Your task to perform on an android device: open app "Spotify: Music and Podcasts" (install if not already installed) and enter user name: "principled@inbox.com" and password: "arrests" Image 0: 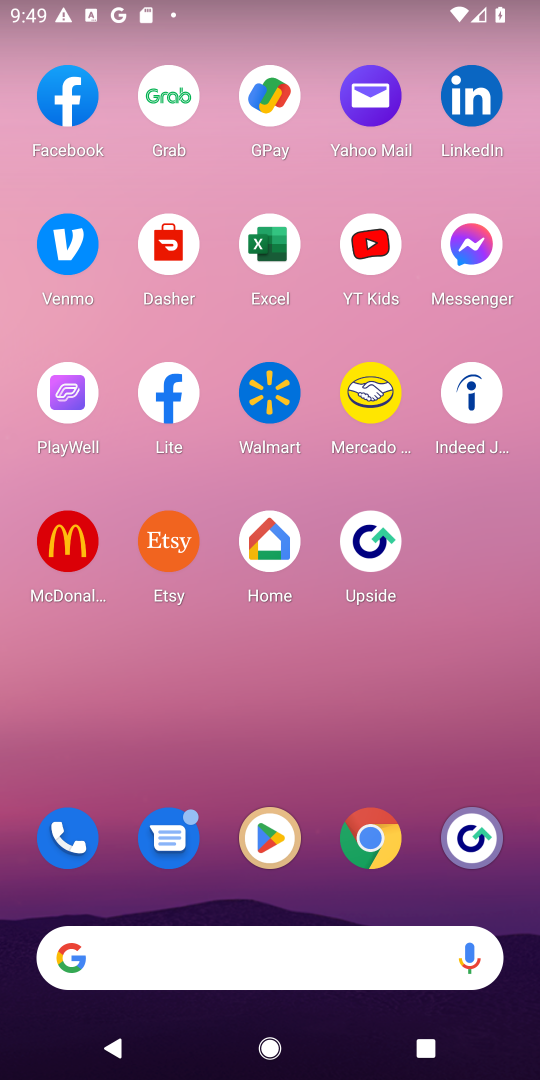
Step 0: click (270, 829)
Your task to perform on an android device: open app "Spotify: Music and Podcasts" (install if not already installed) and enter user name: "principled@inbox.com" and password: "arrests" Image 1: 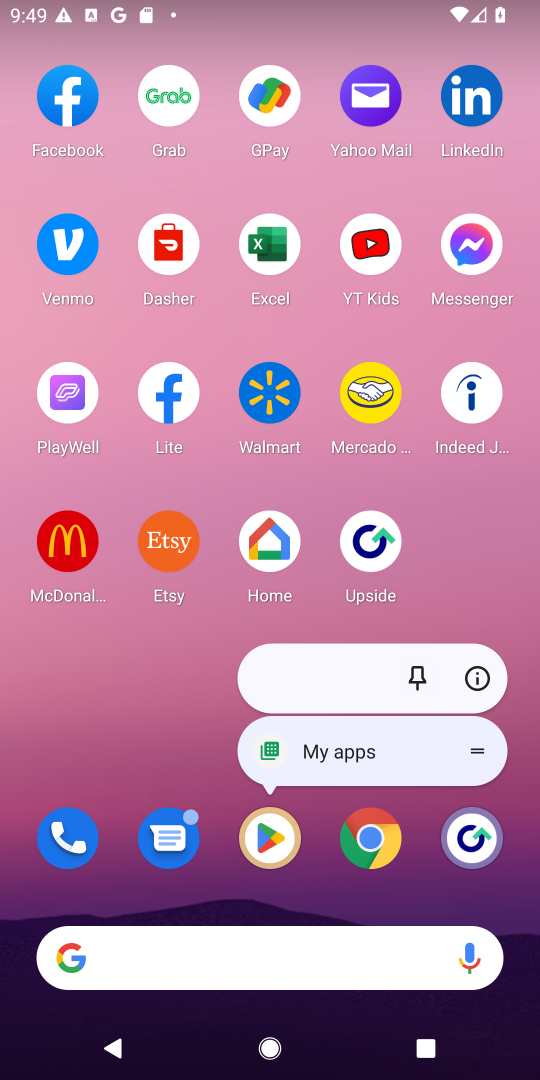
Step 1: click (270, 829)
Your task to perform on an android device: open app "Spotify: Music and Podcasts" (install if not already installed) and enter user name: "principled@inbox.com" and password: "arrests" Image 2: 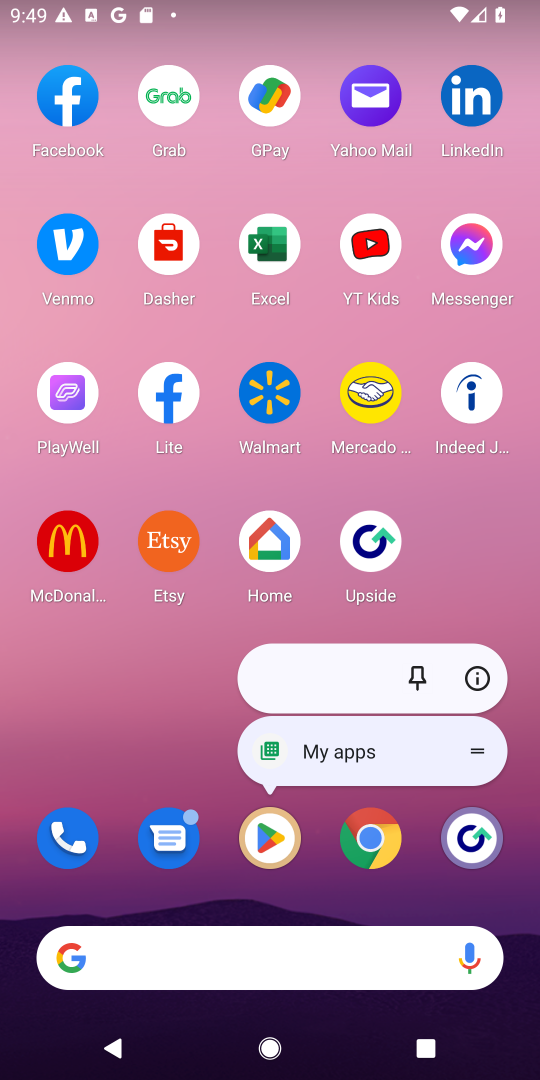
Step 2: click (278, 821)
Your task to perform on an android device: open app "Spotify: Music and Podcasts" (install if not already installed) and enter user name: "principled@inbox.com" and password: "arrests" Image 3: 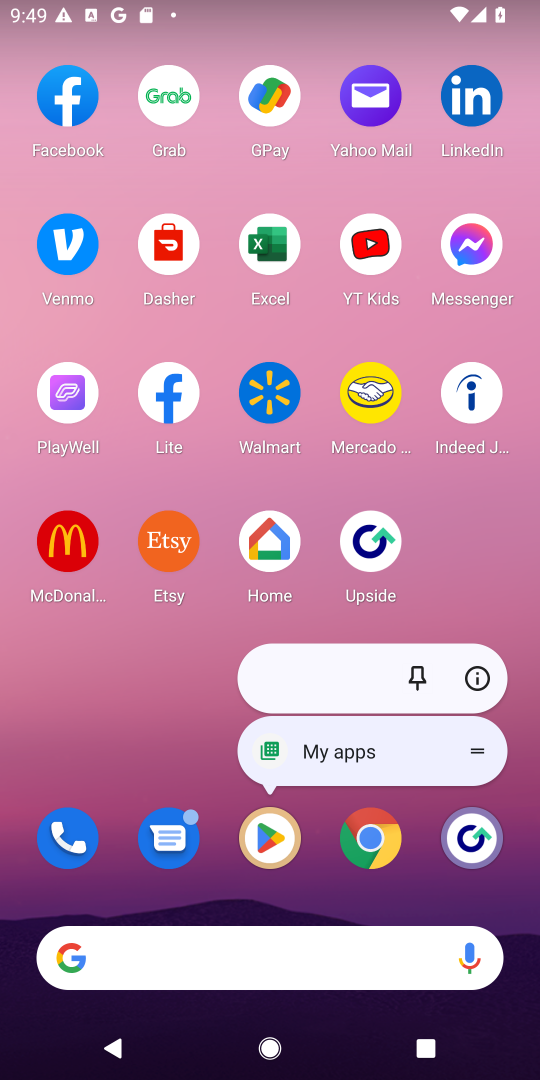
Step 3: click (278, 821)
Your task to perform on an android device: open app "Spotify: Music and Podcasts" (install if not already installed) and enter user name: "principled@inbox.com" and password: "arrests" Image 4: 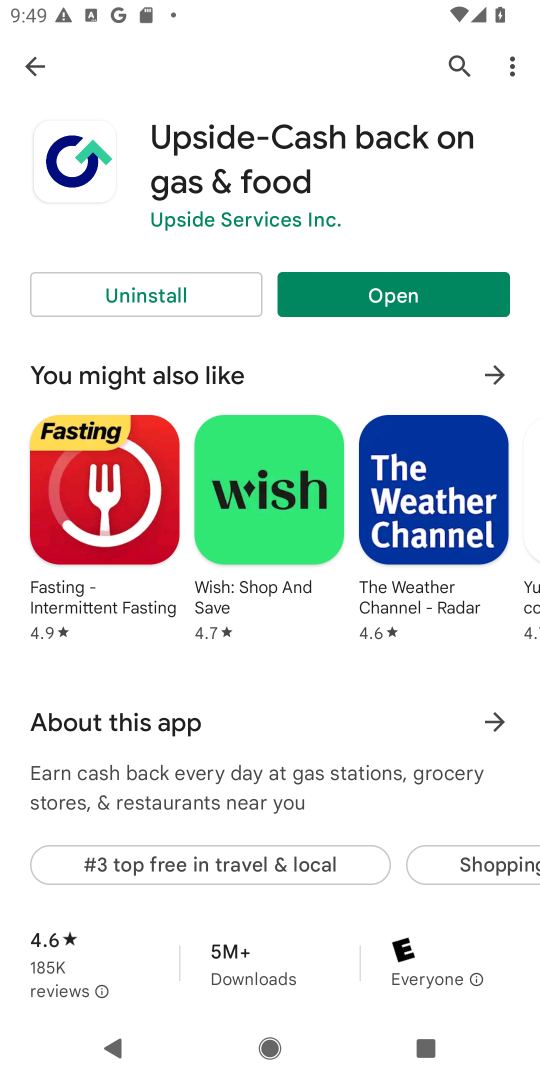
Step 4: click (445, 57)
Your task to perform on an android device: open app "Spotify: Music and Podcasts" (install if not already installed) and enter user name: "principled@inbox.com" and password: "arrests" Image 5: 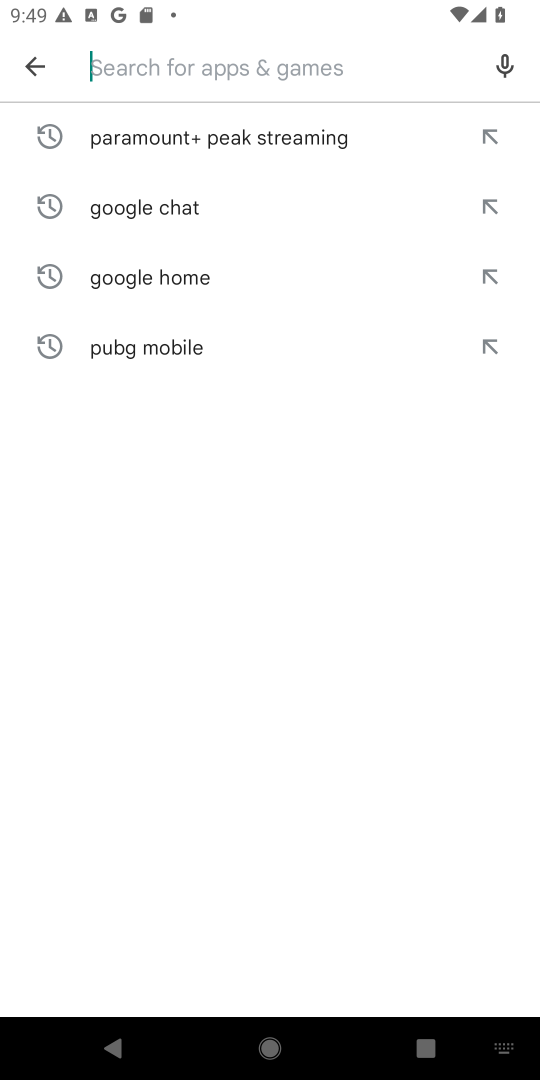
Step 5: type "Spotify: Music and Podcasts"
Your task to perform on an android device: open app "Spotify: Music and Podcasts" (install if not already installed) and enter user name: "principled@inbox.com" and password: "arrests" Image 6: 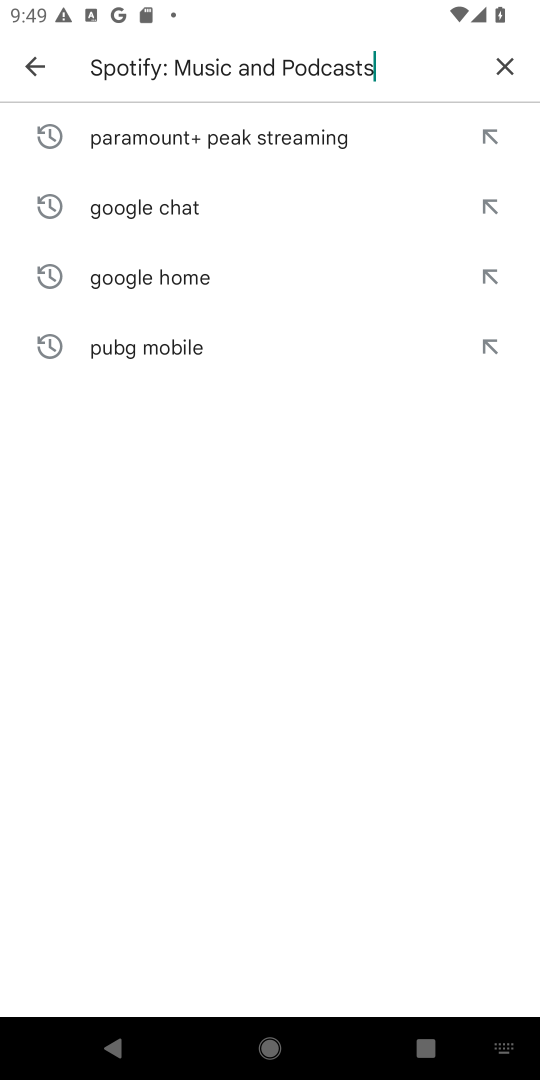
Step 6: type ""
Your task to perform on an android device: open app "Spotify: Music and Podcasts" (install if not already installed) and enter user name: "principled@inbox.com" and password: "arrests" Image 7: 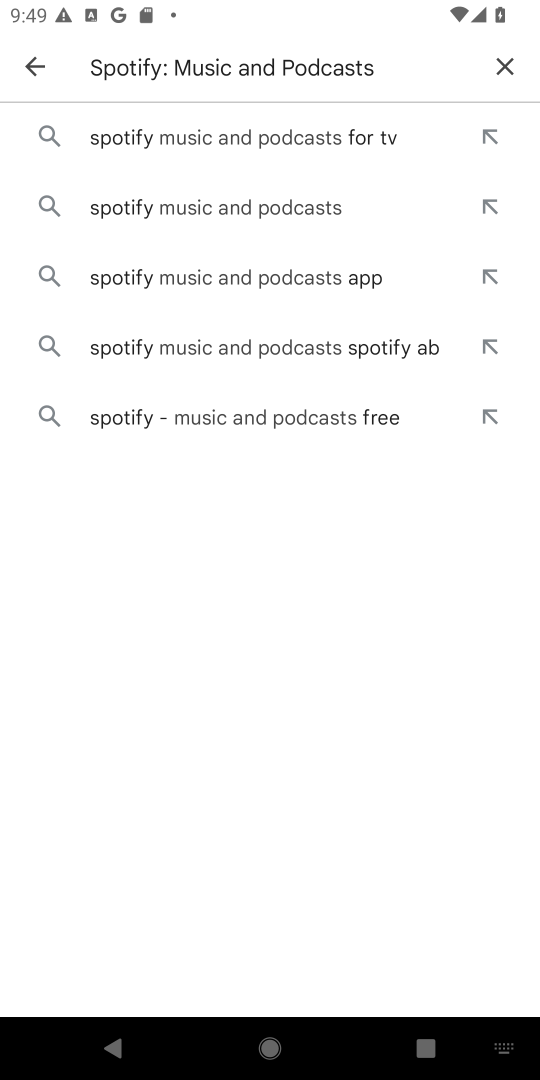
Step 7: click (219, 148)
Your task to perform on an android device: open app "Spotify: Music and Podcasts" (install if not already installed) and enter user name: "principled@inbox.com" and password: "arrests" Image 8: 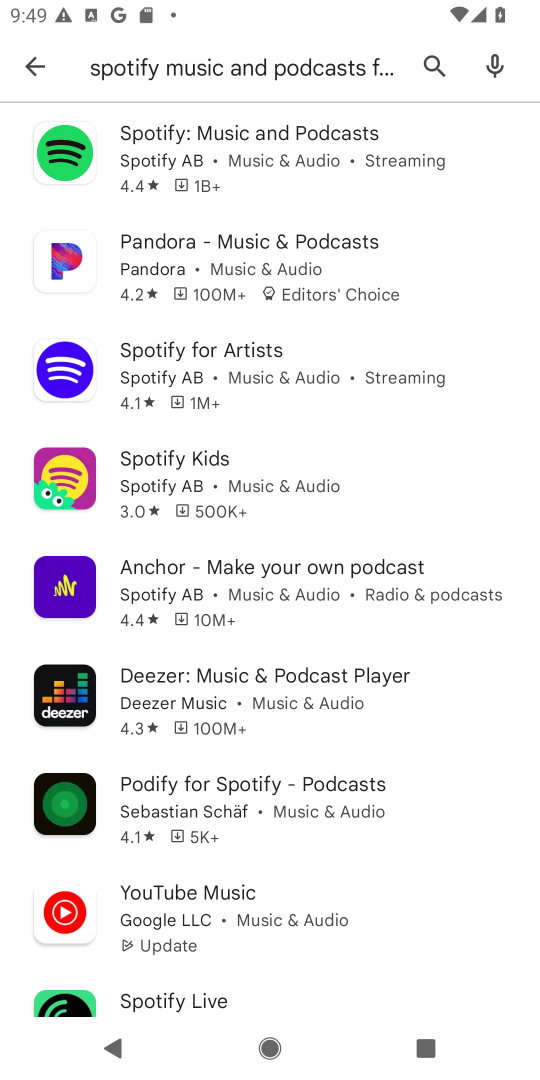
Step 8: click (222, 148)
Your task to perform on an android device: open app "Spotify: Music and Podcasts" (install if not already installed) and enter user name: "principled@inbox.com" and password: "arrests" Image 9: 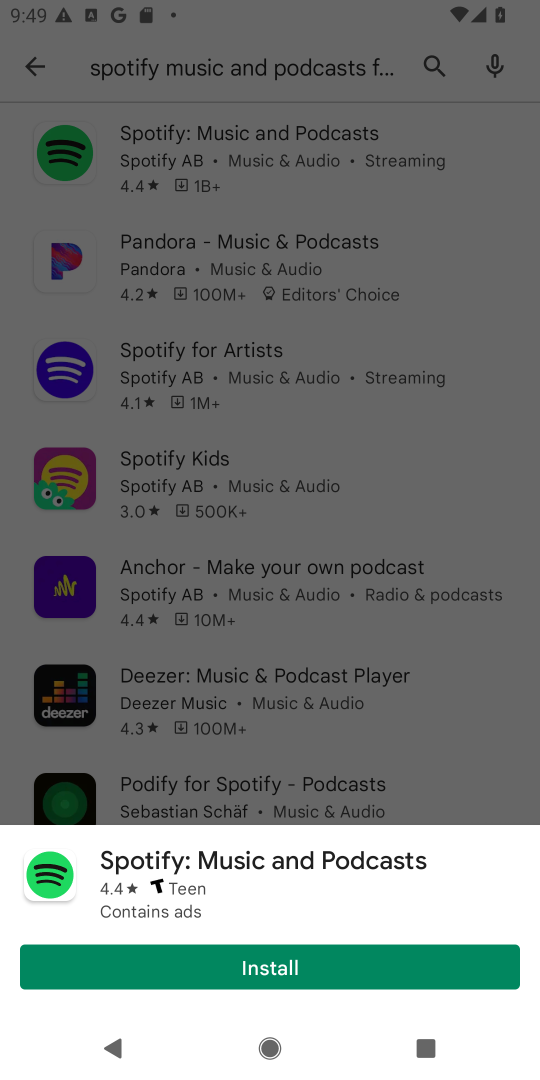
Step 9: click (330, 959)
Your task to perform on an android device: open app "Spotify: Music and Podcasts" (install if not already installed) and enter user name: "principled@inbox.com" and password: "arrests" Image 10: 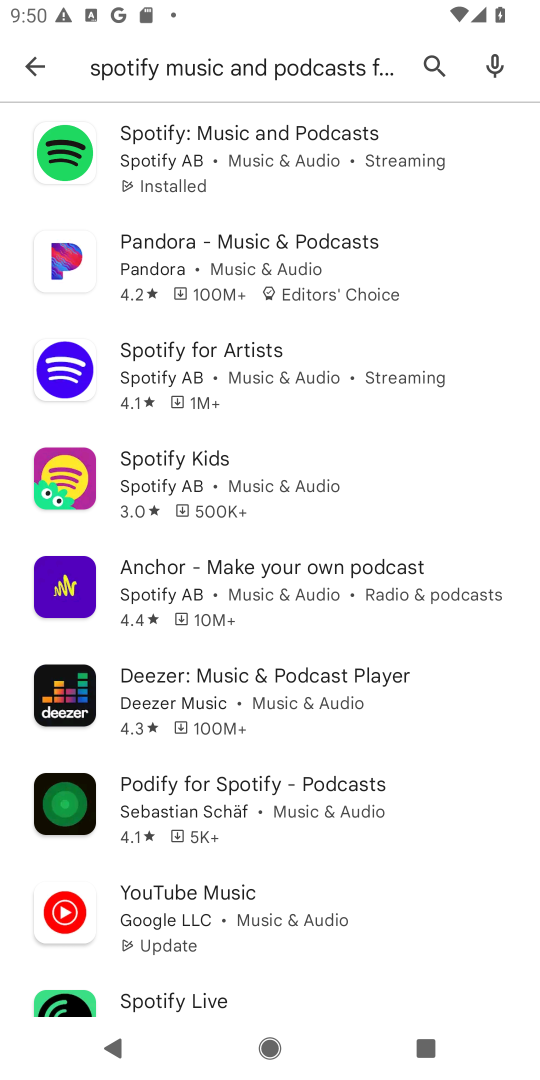
Step 10: click (199, 158)
Your task to perform on an android device: open app "Spotify: Music and Podcasts" (install if not already installed) and enter user name: "principled@inbox.com" and password: "arrests" Image 11: 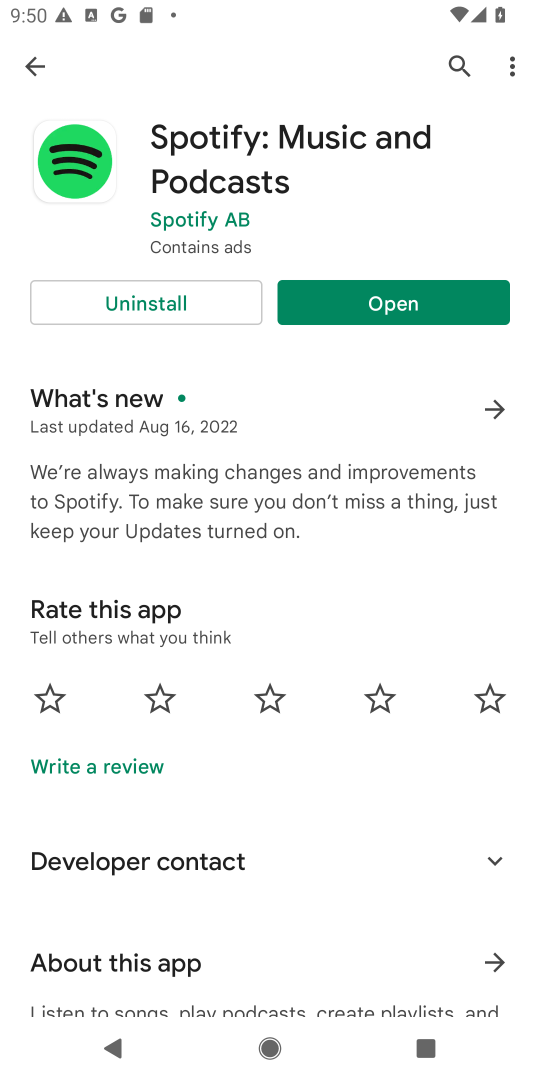
Step 11: click (335, 301)
Your task to perform on an android device: open app "Spotify: Music and Podcasts" (install if not already installed) and enter user name: "principled@inbox.com" and password: "arrests" Image 12: 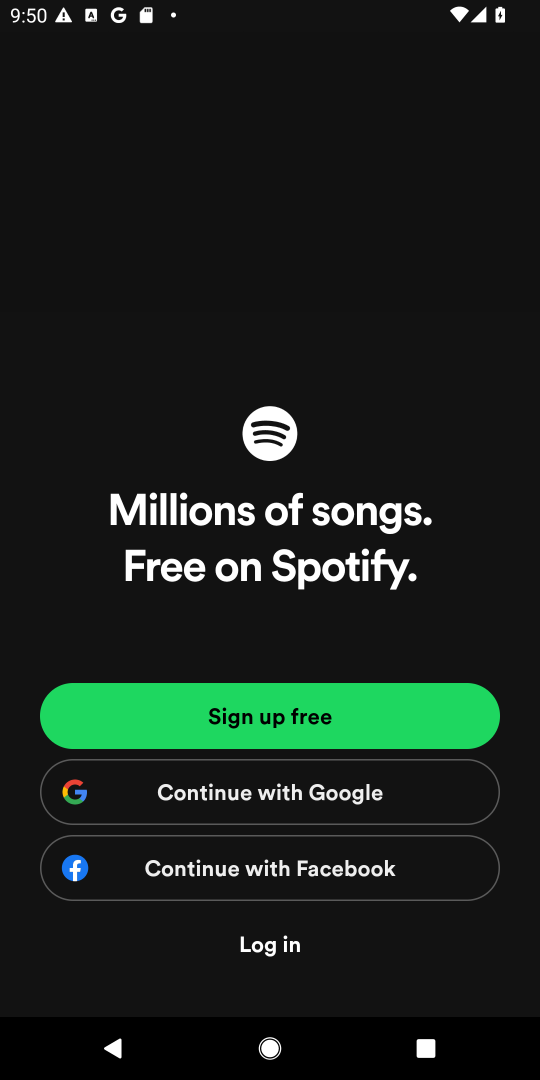
Step 12: task complete